Your task to perform on an android device: What's a good restaurant in Sacramento? Image 0: 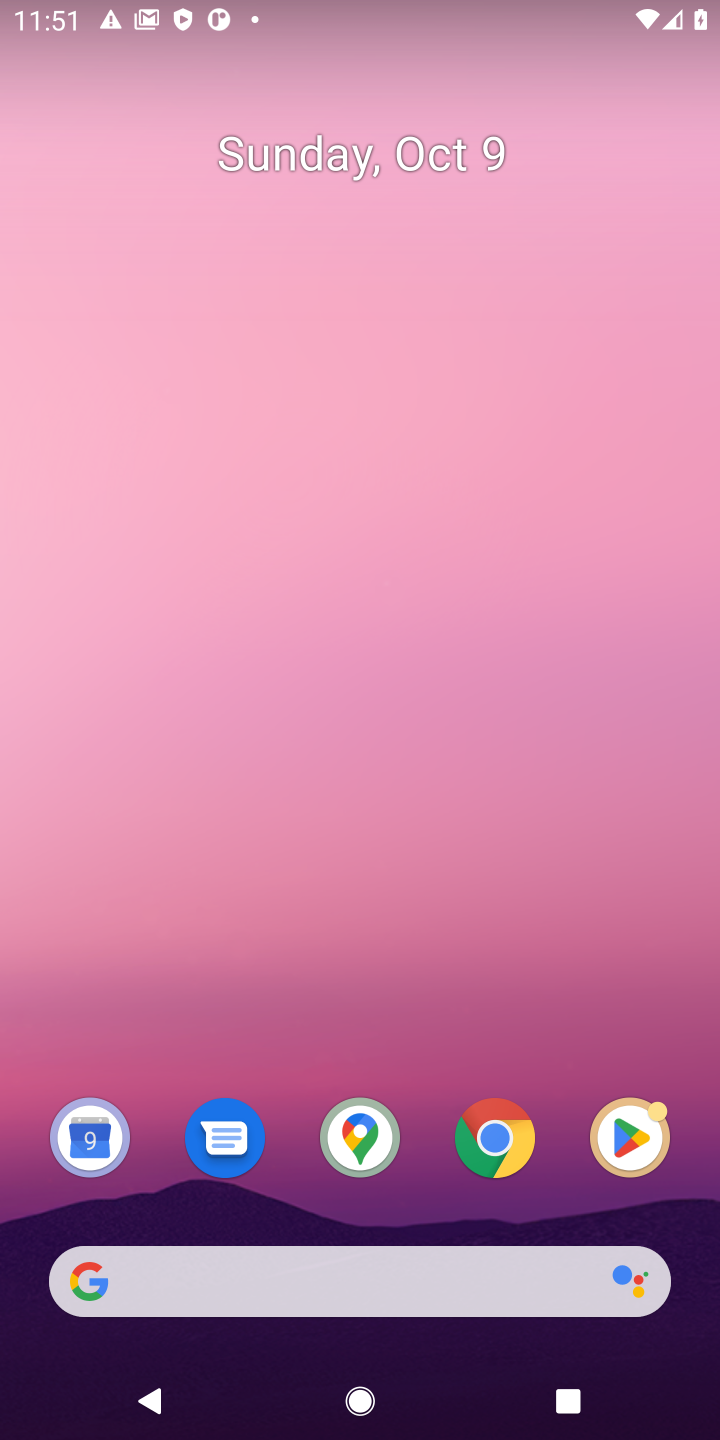
Step 0: click (479, 1165)
Your task to perform on an android device: What's a good restaurant in Sacramento? Image 1: 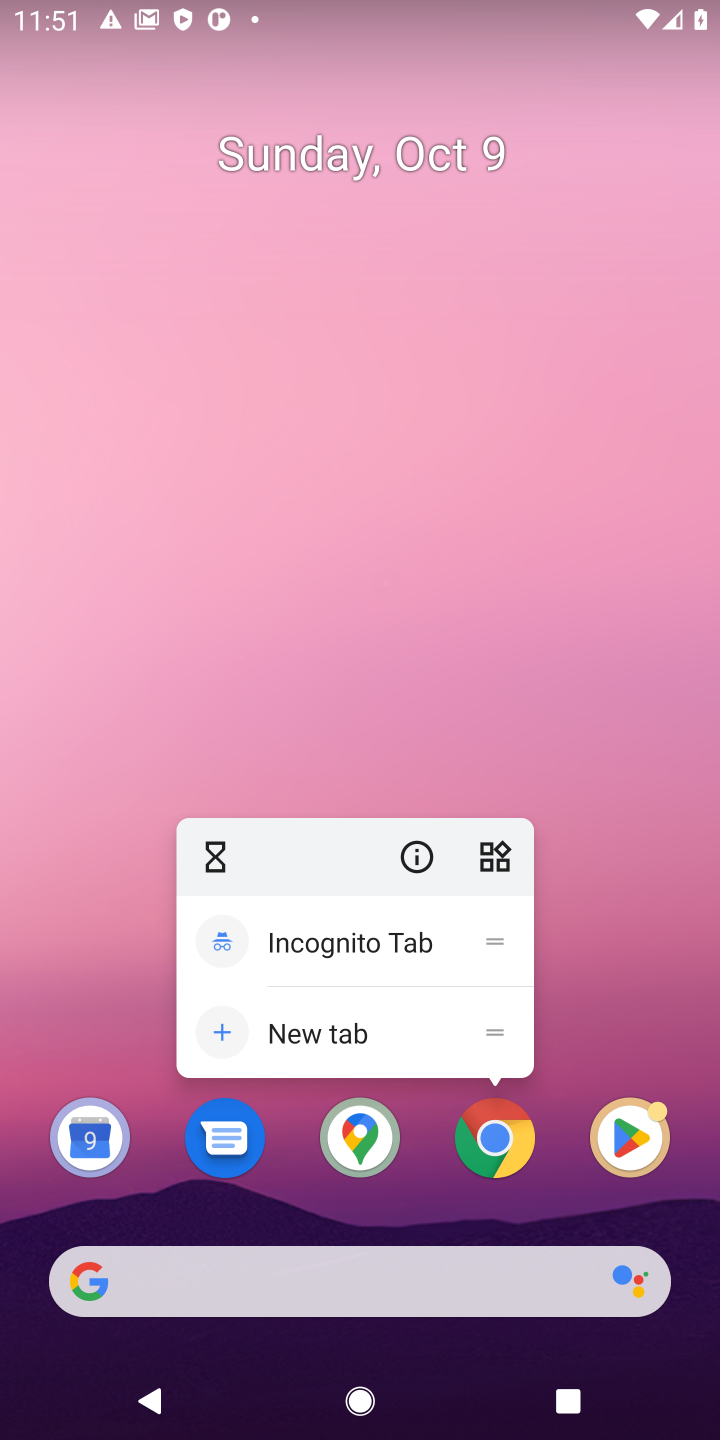
Step 1: click (479, 1165)
Your task to perform on an android device: What's a good restaurant in Sacramento? Image 2: 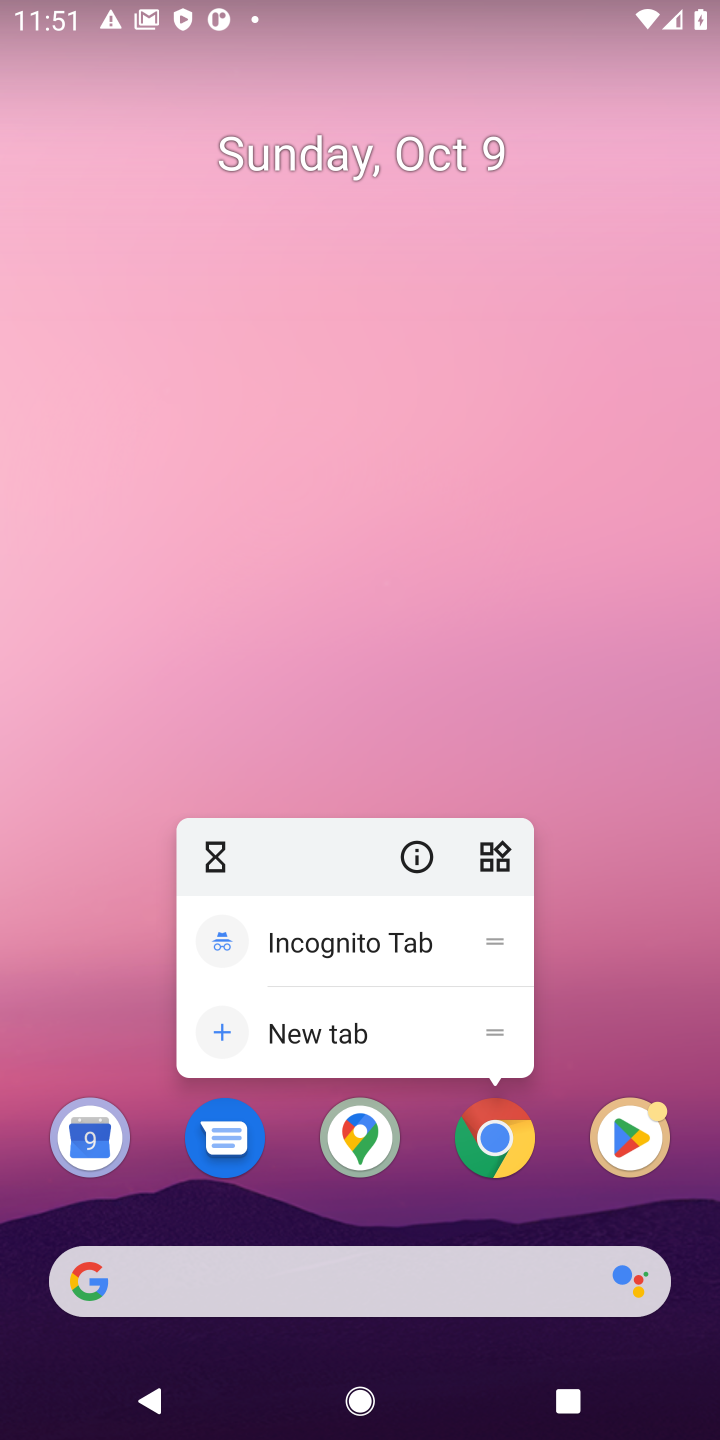
Step 2: click (479, 1165)
Your task to perform on an android device: What's a good restaurant in Sacramento? Image 3: 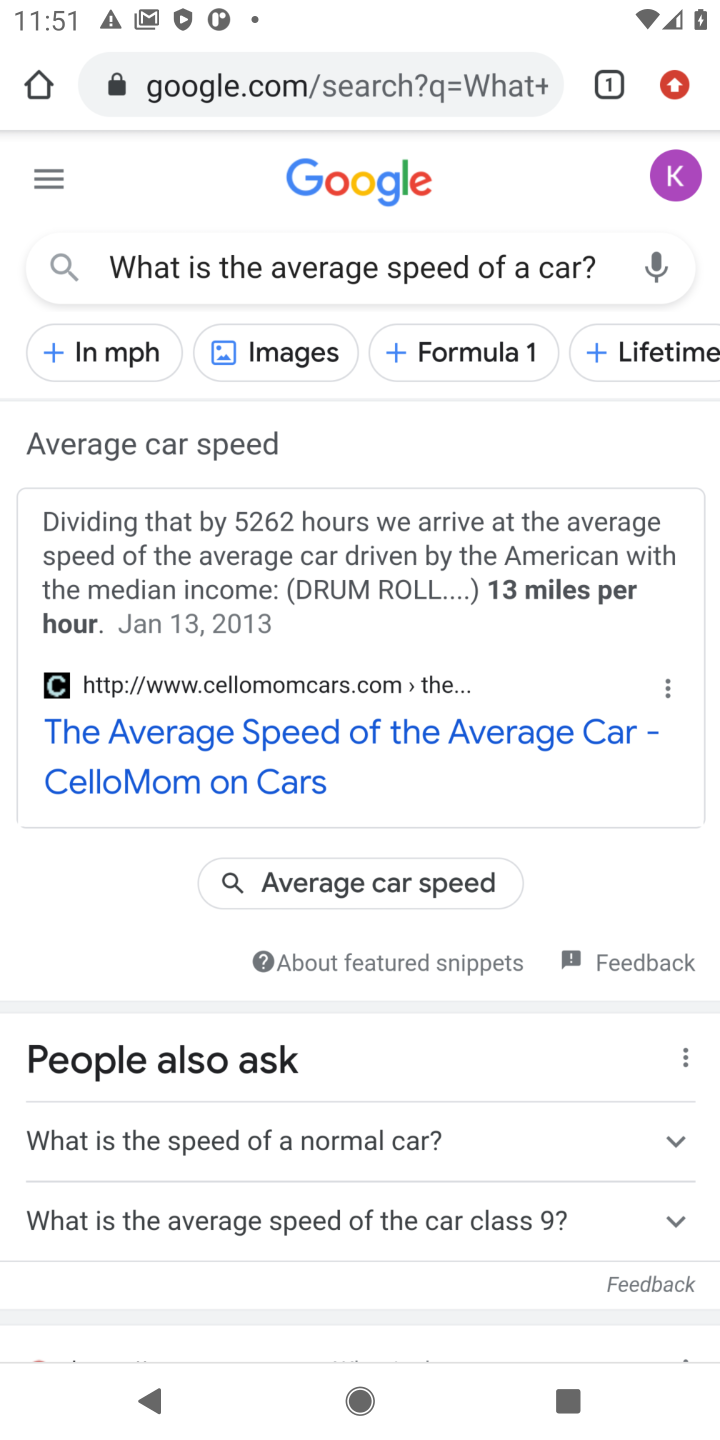
Step 3: click (479, 1165)
Your task to perform on an android device: What's a good restaurant in Sacramento? Image 4: 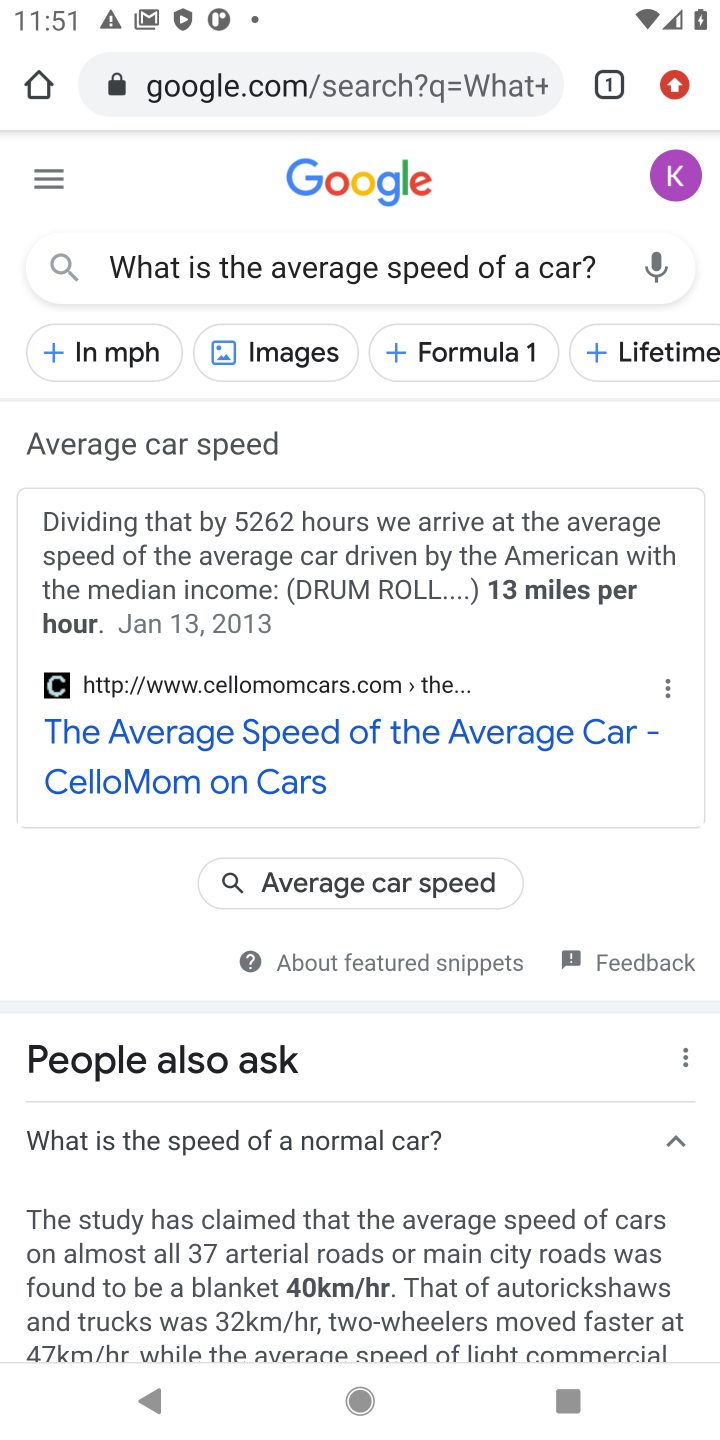
Step 4: click (536, 265)
Your task to perform on an android device: What's a good restaurant in Sacramento? Image 5: 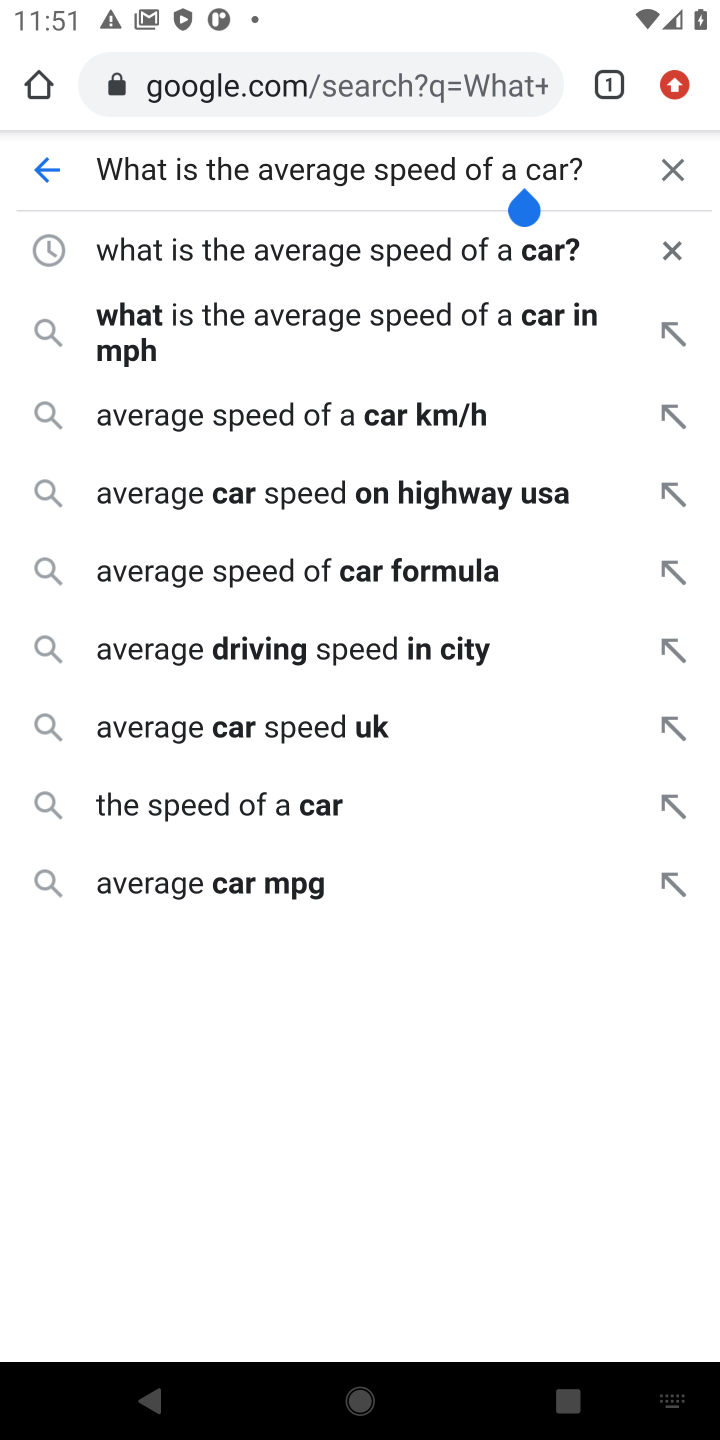
Step 5: click (679, 176)
Your task to perform on an android device: What's a good restaurant in Sacramento? Image 6: 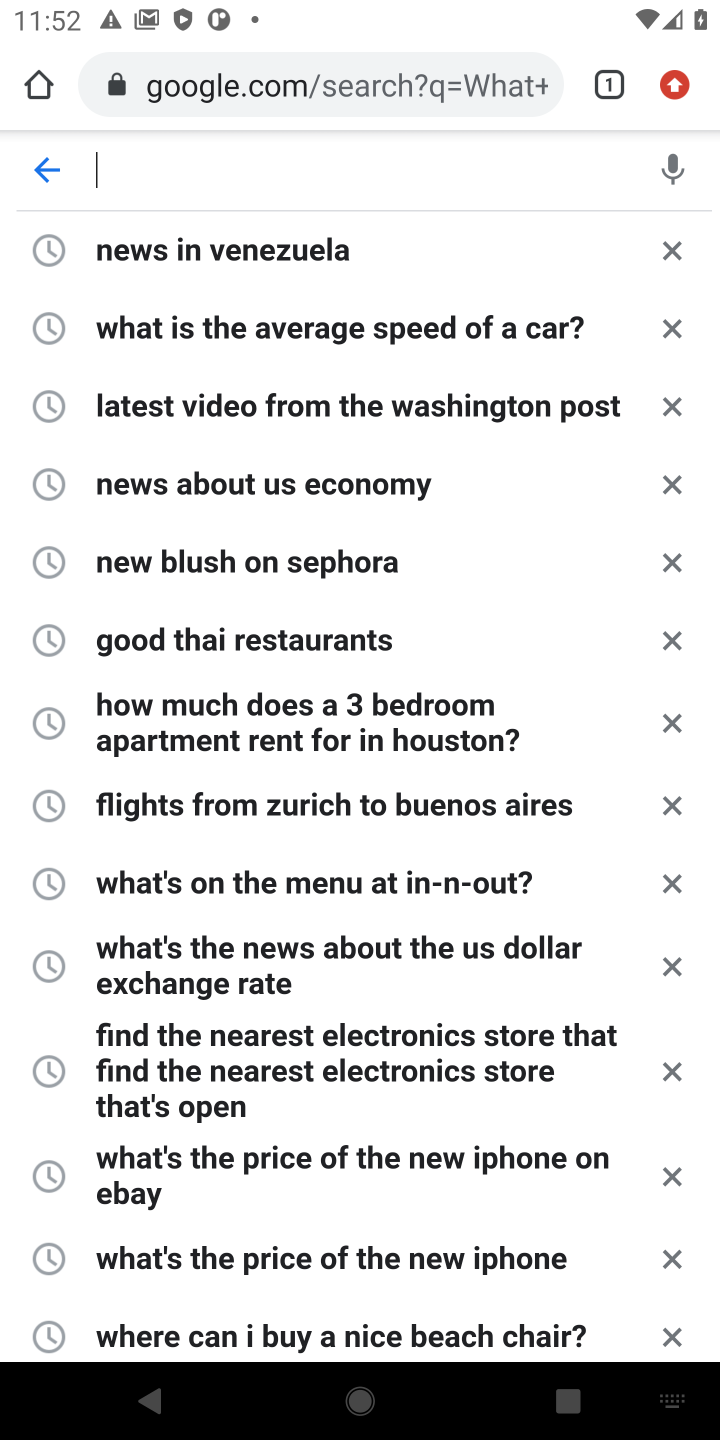
Step 6: type "What's a good restaurant in Sacramento?"
Your task to perform on an android device: What's a good restaurant in Sacramento? Image 7: 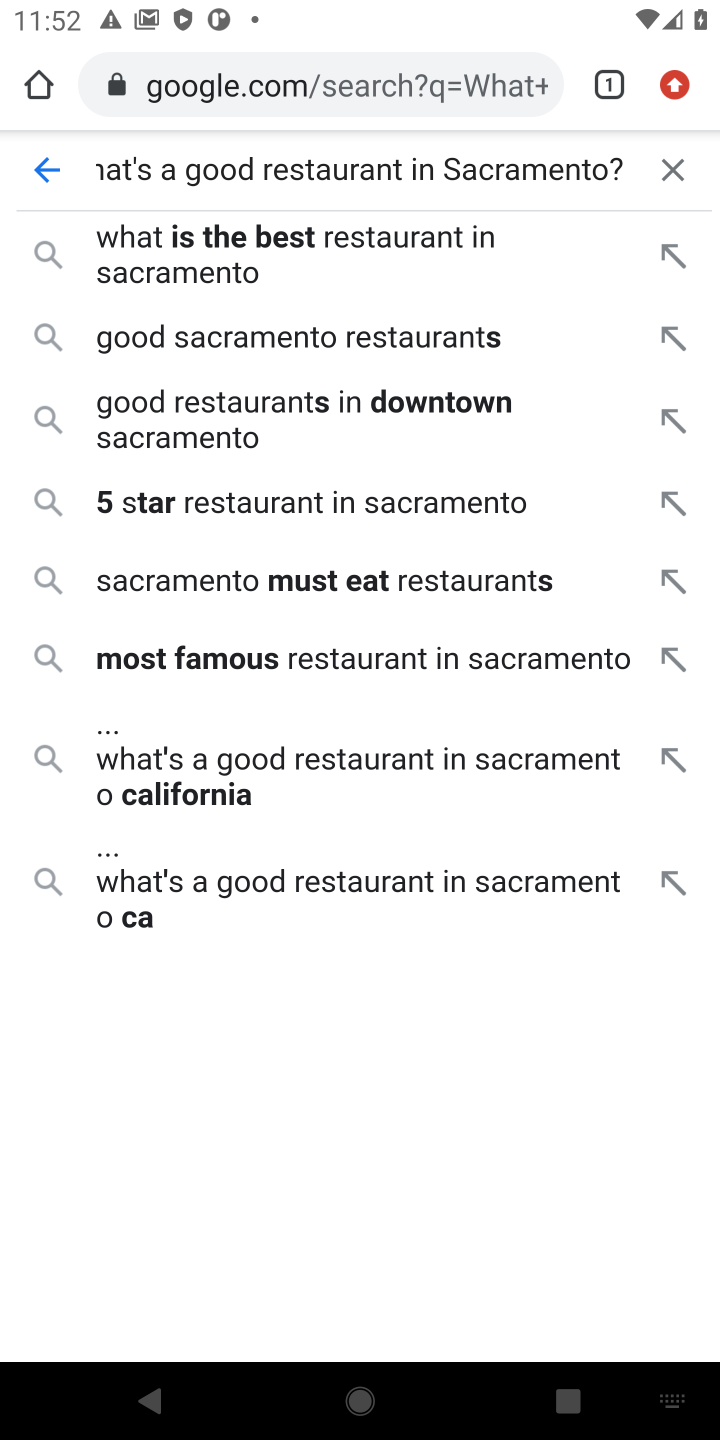
Step 7: press enter
Your task to perform on an android device: What's a good restaurant in Sacramento? Image 8: 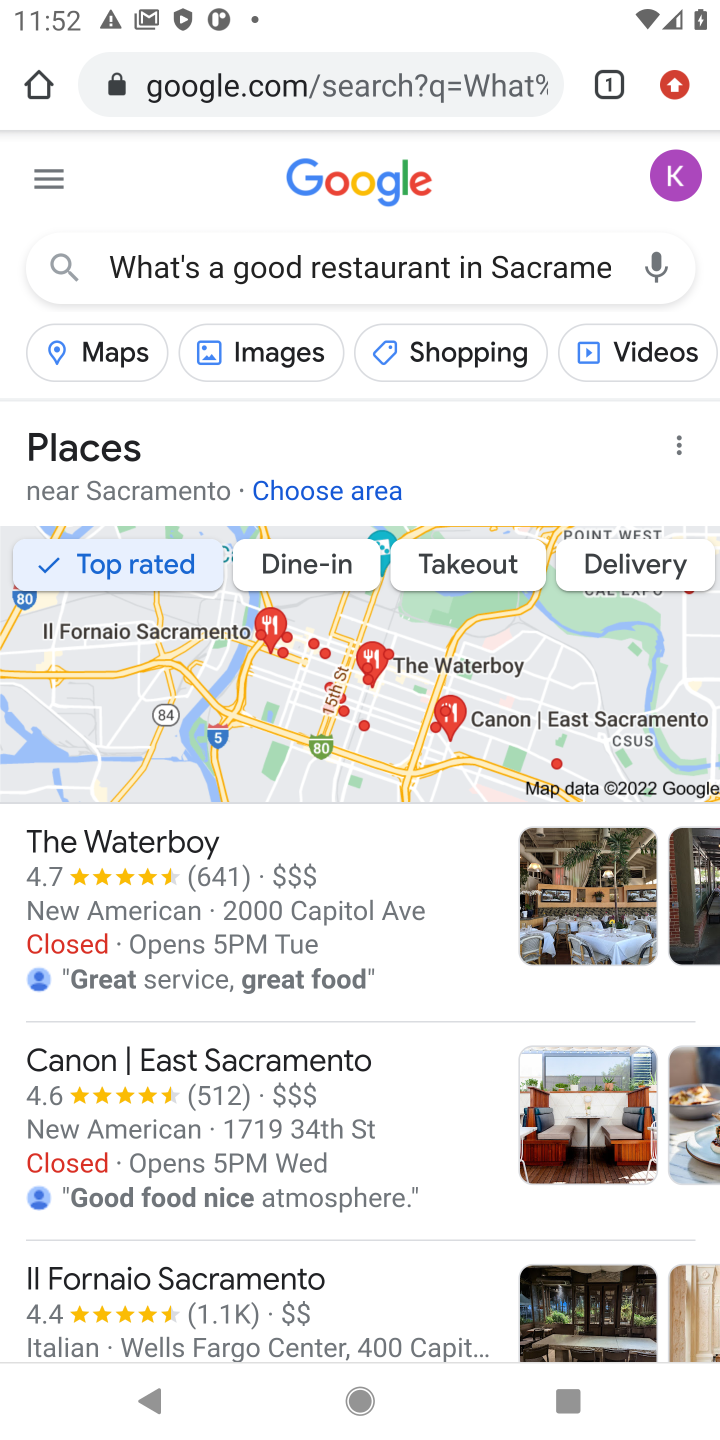
Step 8: task complete